Your task to perform on an android device: all mails in gmail Image 0: 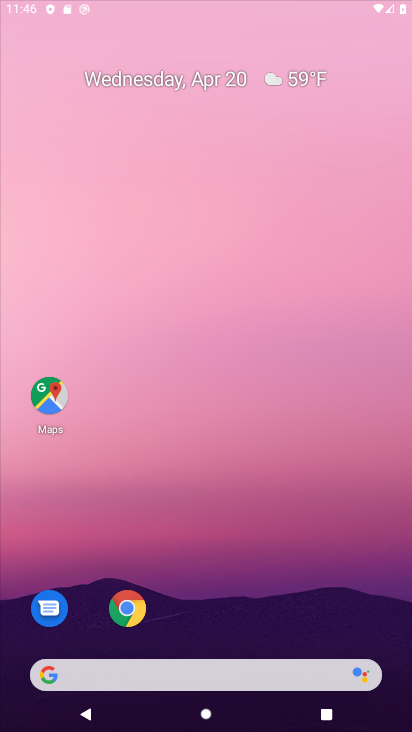
Step 0: drag from (243, 564) to (229, 125)
Your task to perform on an android device: all mails in gmail Image 1: 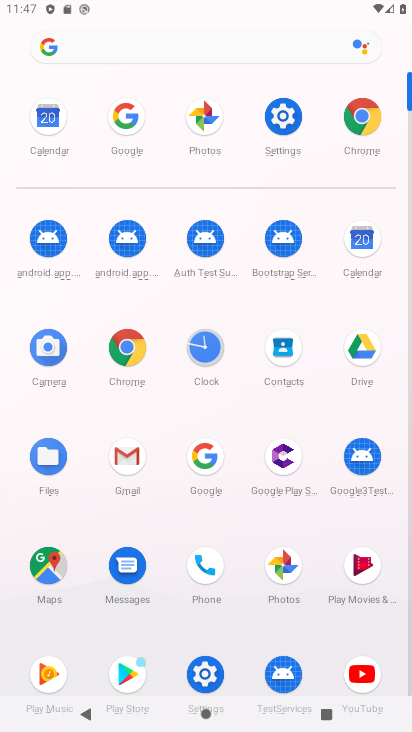
Step 1: click (125, 458)
Your task to perform on an android device: all mails in gmail Image 2: 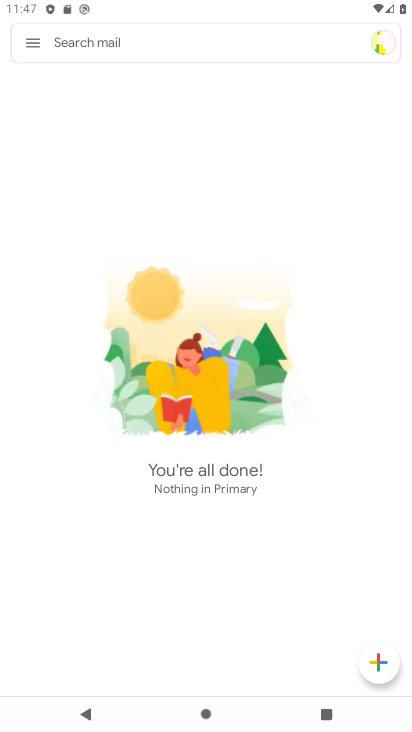
Step 2: click (35, 41)
Your task to perform on an android device: all mails in gmail Image 3: 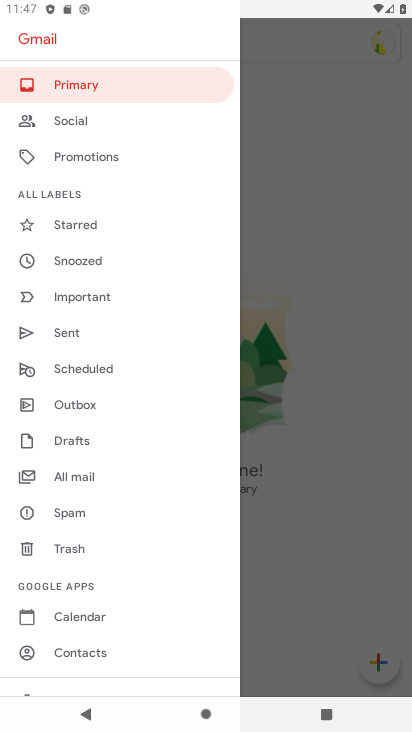
Step 3: click (85, 469)
Your task to perform on an android device: all mails in gmail Image 4: 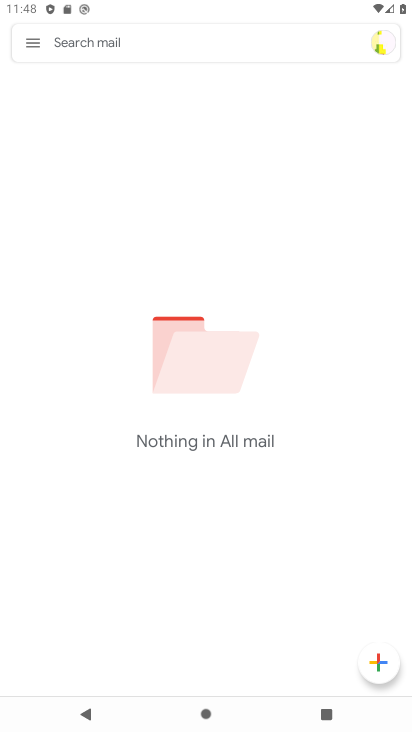
Step 4: task complete